Your task to perform on an android device: open app "Yahoo Mail" (install if not already installed) Image 0: 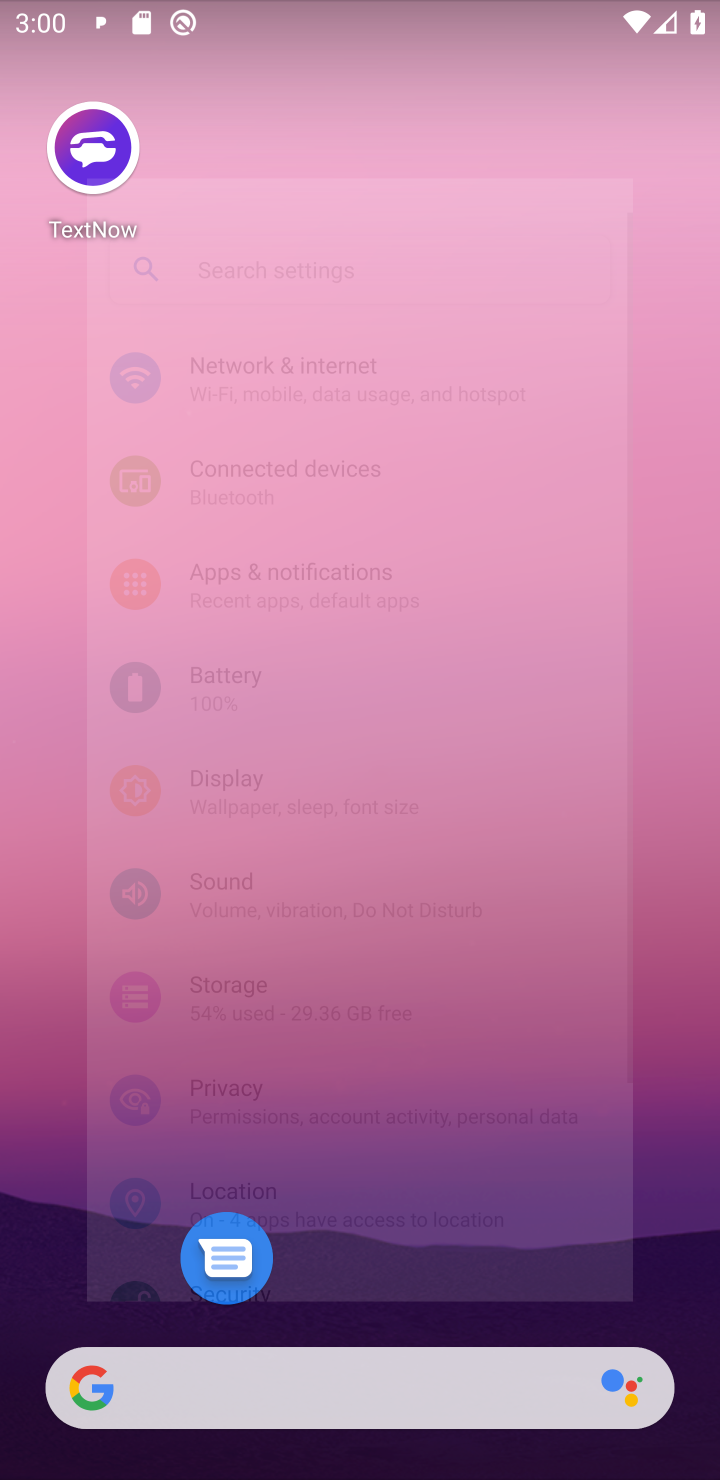
Step 0: press home button
Your task to perform on an android device: open app "Yahoo Mail" (install if not already installed) Image 1: 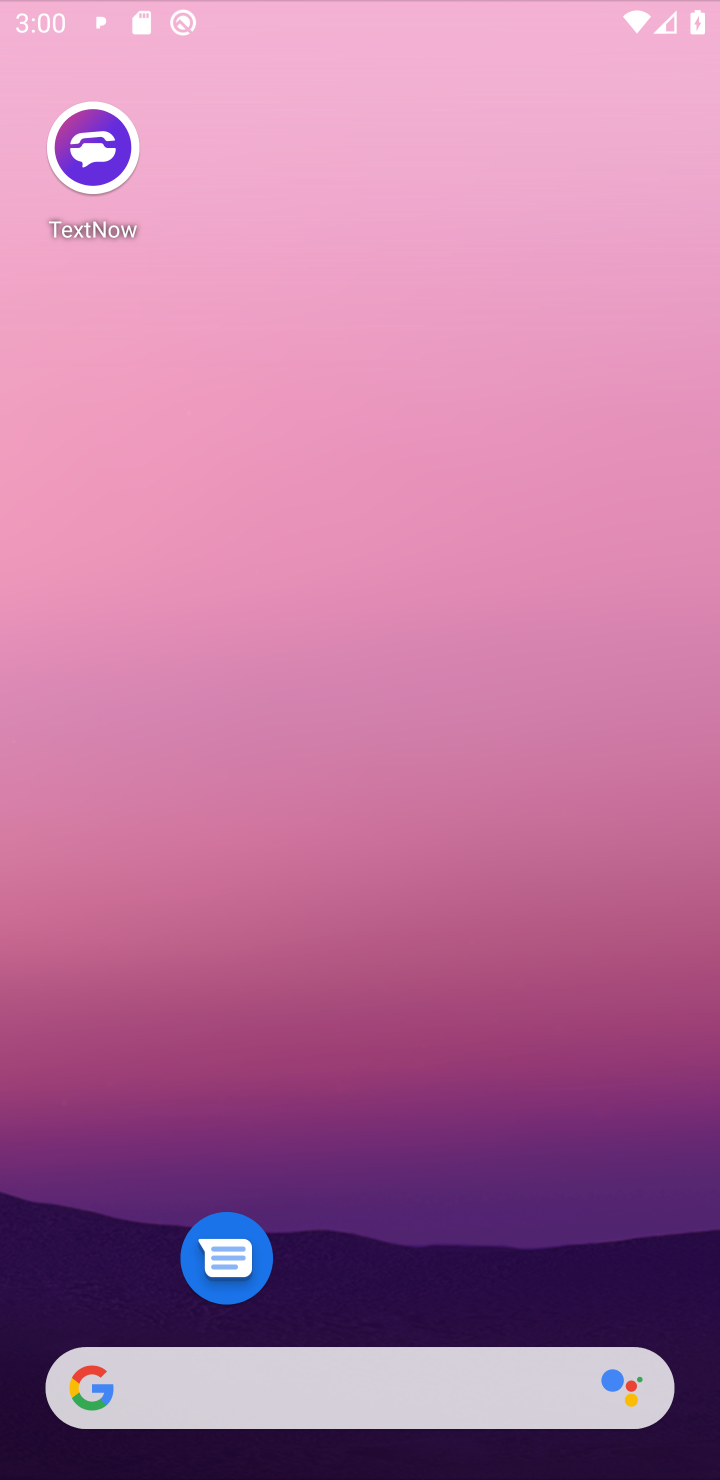
Step 1: press home button
Your task to perform on an android device: open app "Yahoo Mail" (install if not already installed) Image 2: 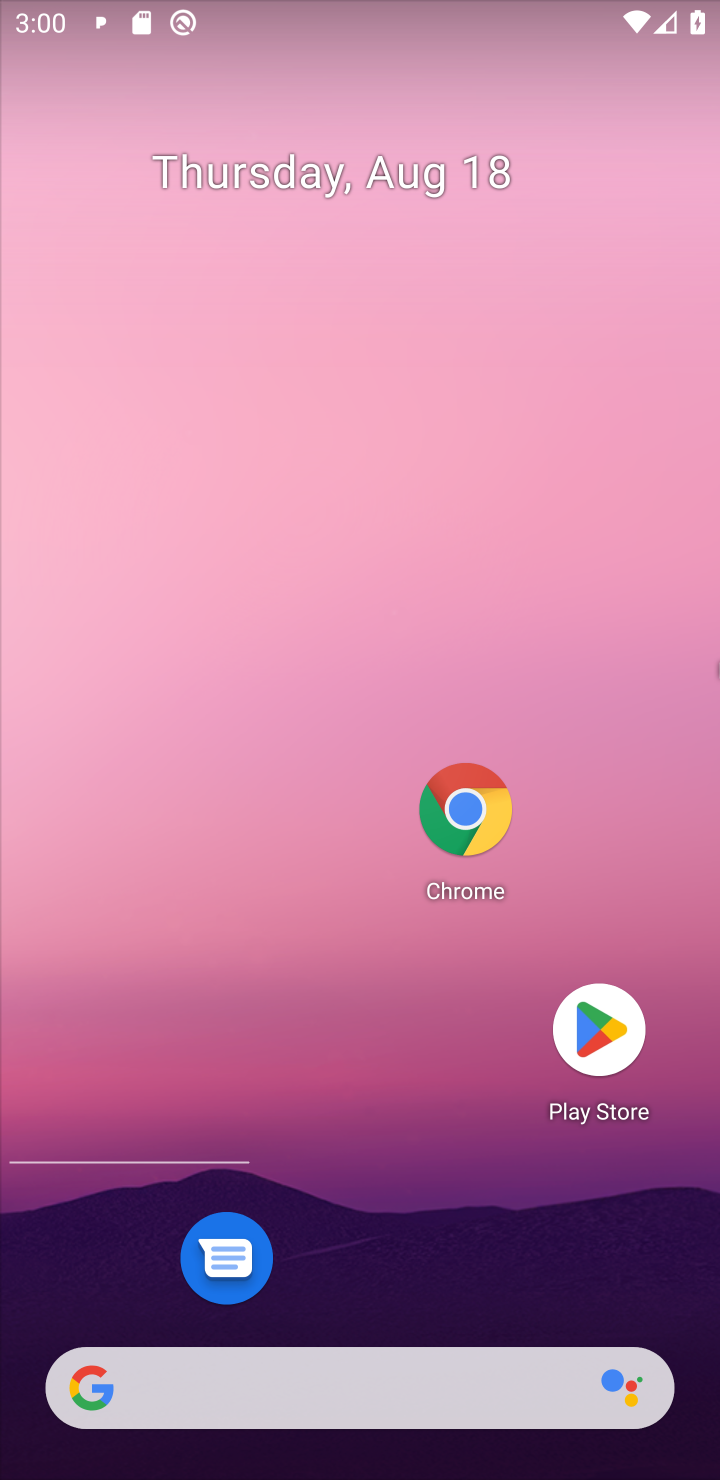
Step 2: click (488, 365)
Your task to perform on an android device: open app "Yahoo Mail" (install if not already installed) Image 3: 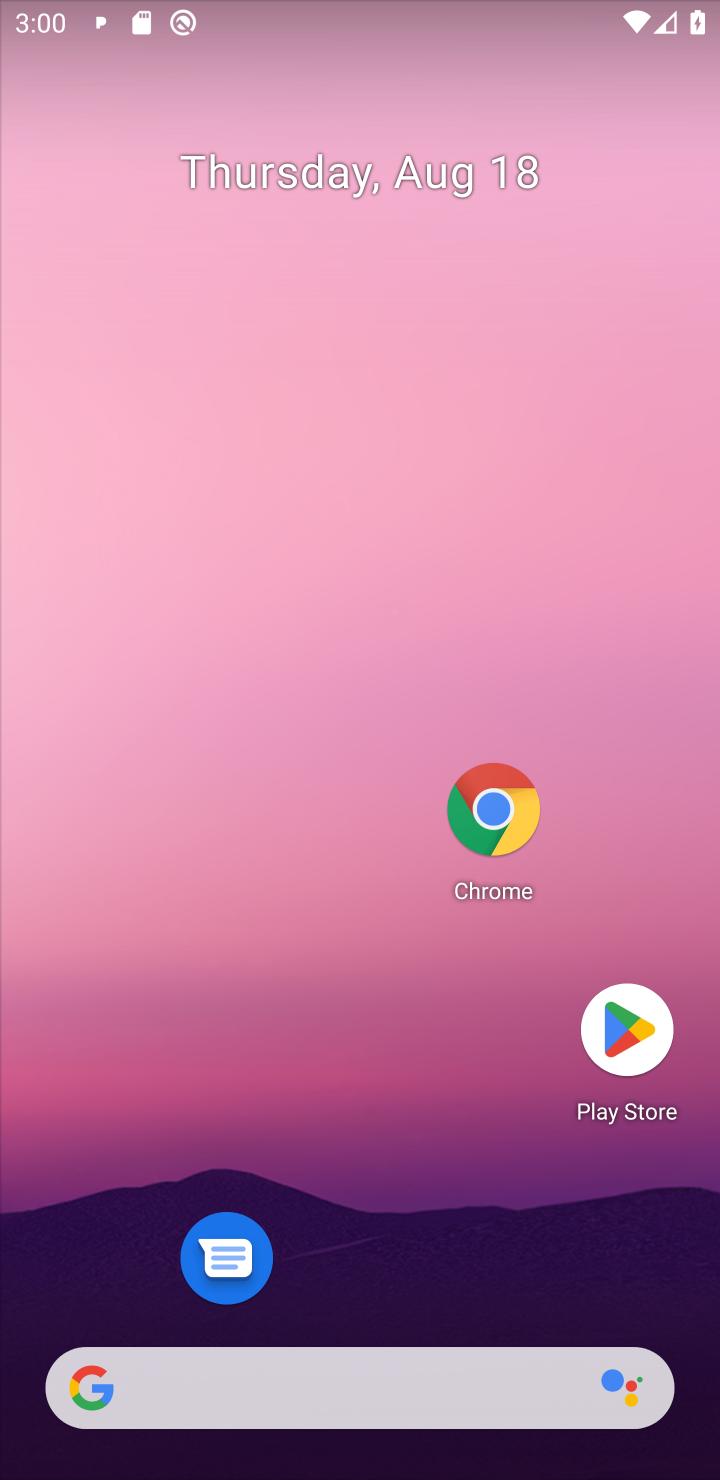
Step 3: click (611, 1013)
Your task to perform on an android device: open app "Yahoo Mail" (install if not already installed) Image 4: 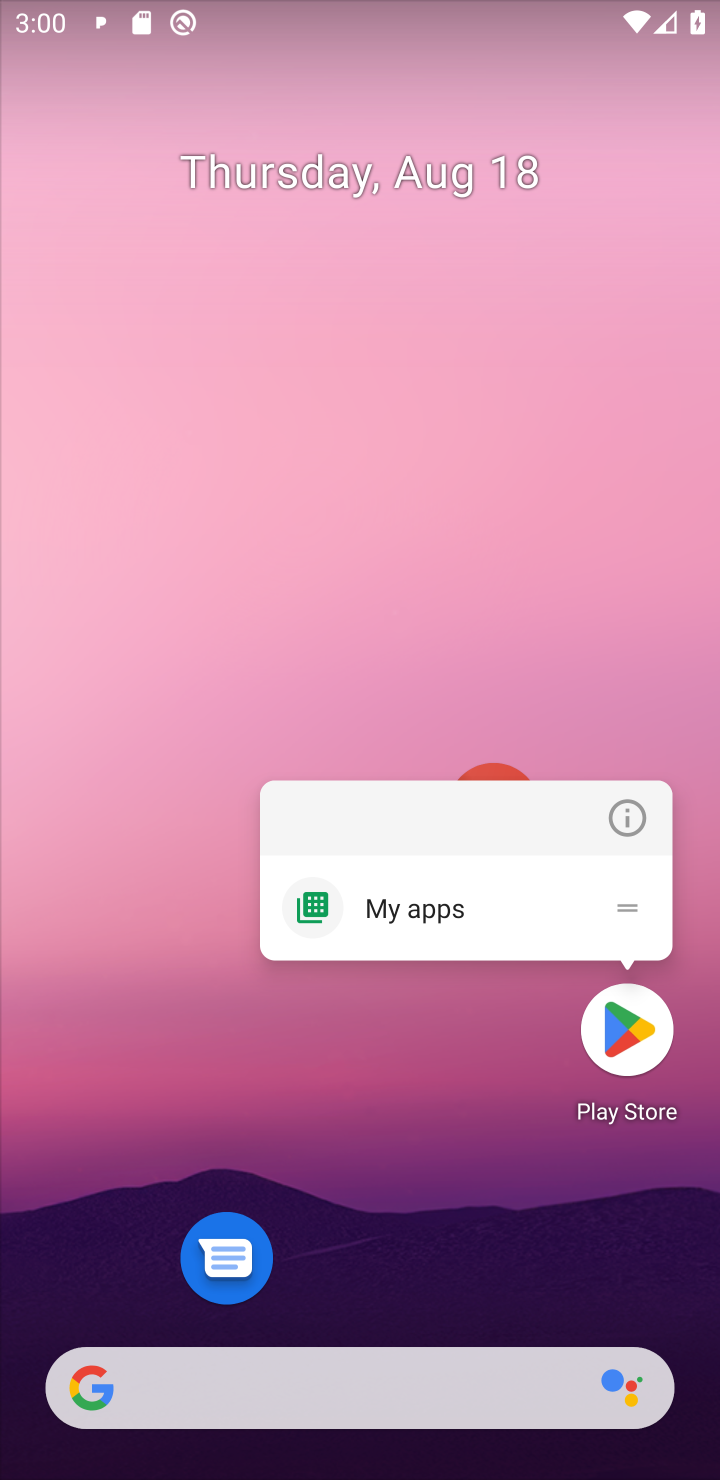
Step 4: click (611, 1013)
Your task to perform on an android device: open app "Yahoo Mail" (install if not already installed) Image 5: 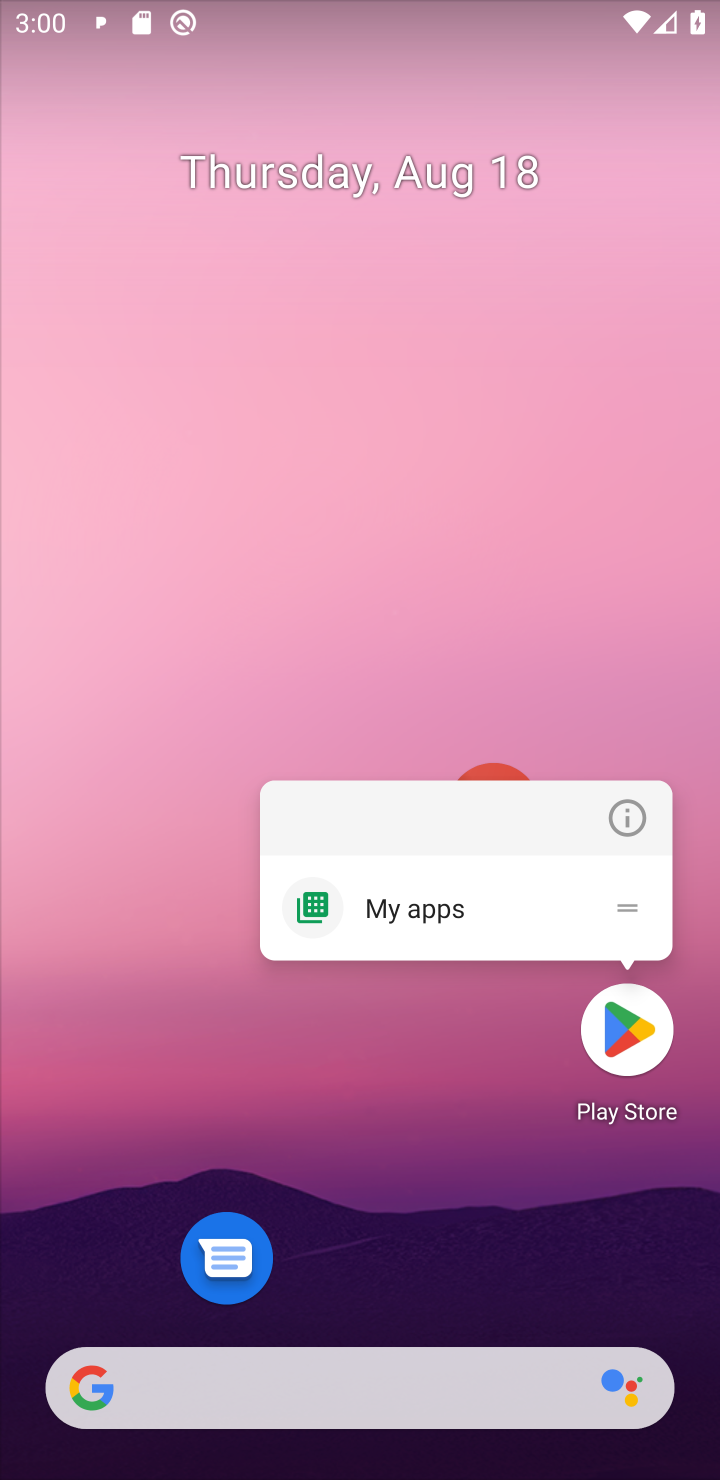
Step 5: click (623, 1030)
Your task to perform on an android device: open app "Yahoo Mail" (install if not already installed) Image 6: 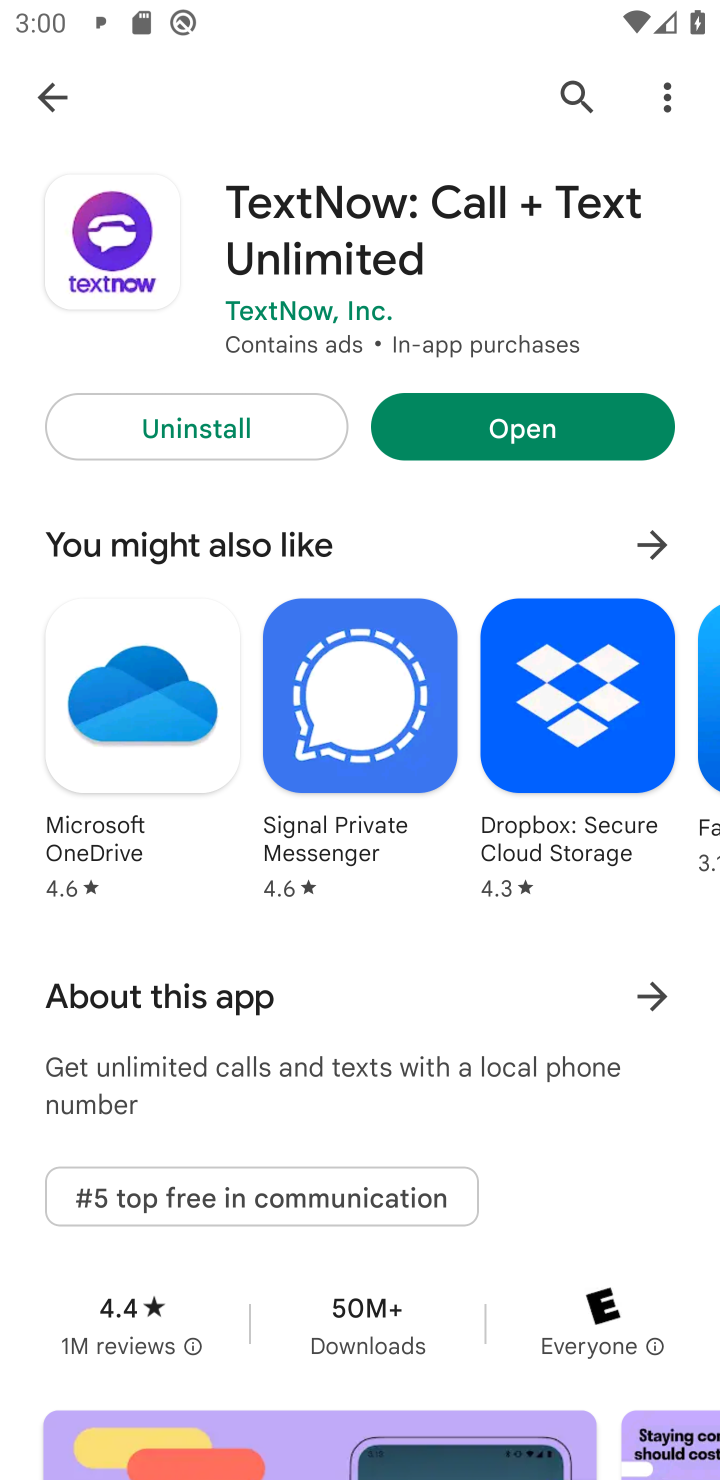
Step 6: click (57, 81)
Your task to perform on an android device: open app "Yahoo Mail" (install if not already installed) Image 7: 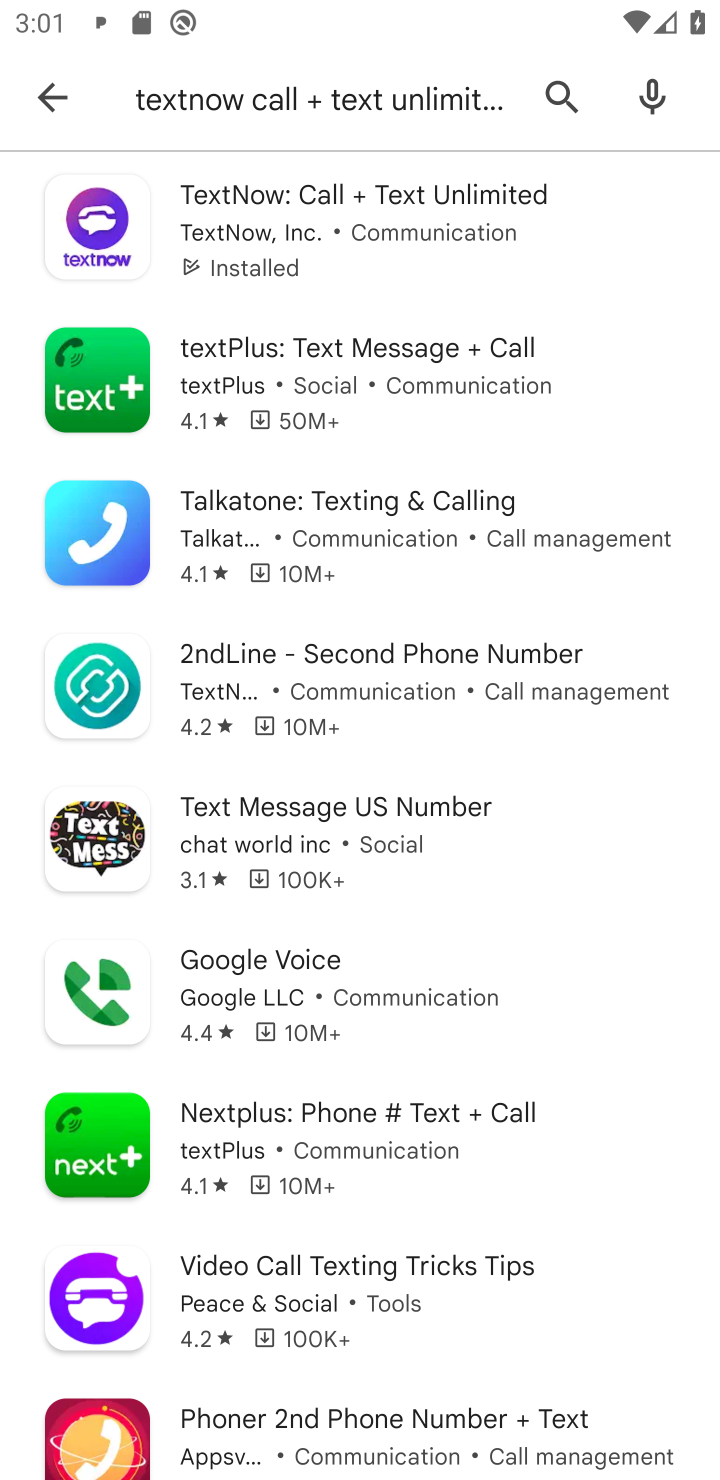
Step 7: click (550, 86)
Your task to perform on an android device: open app "Yahoo Mail" (install if not already installed) Image 8: 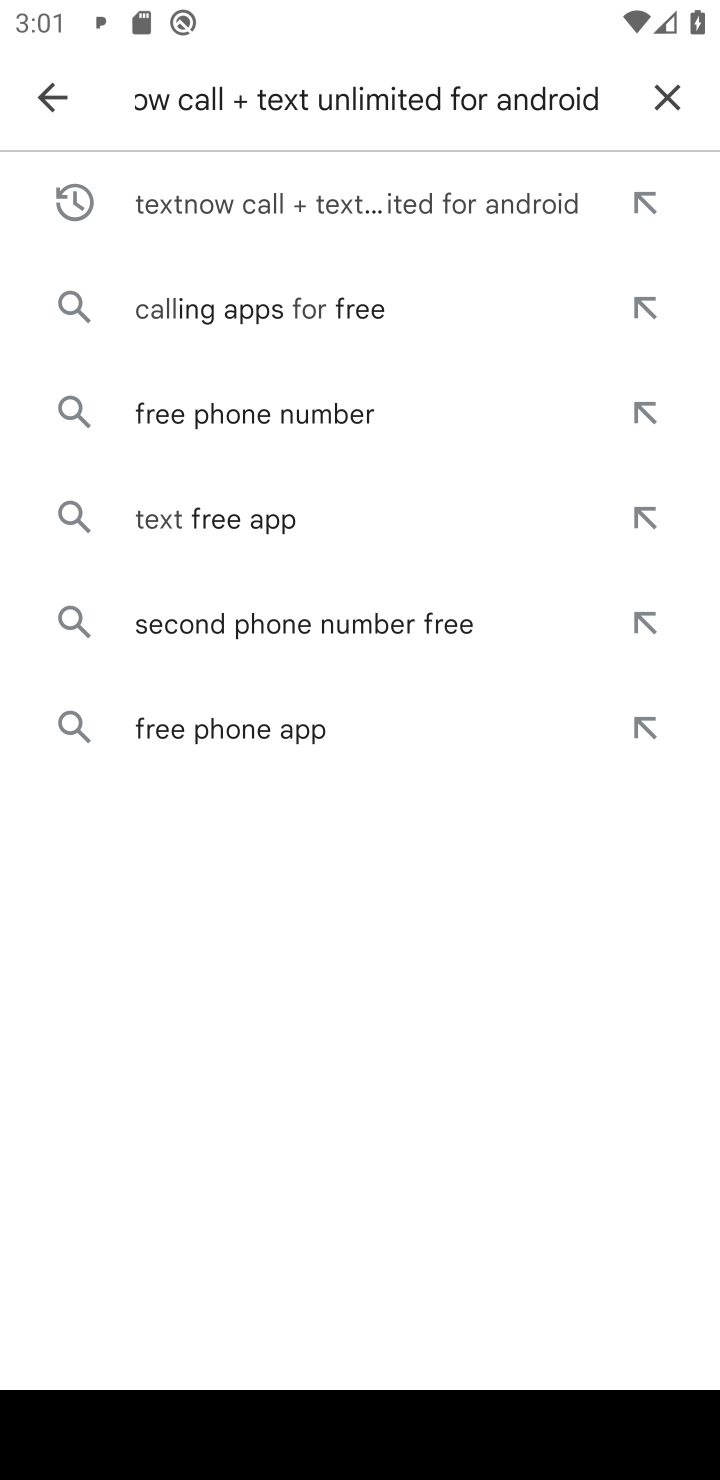
Step 8: click (673, 90)
Your task to perform on an android device: open app "Yahoo Mail" (install if not already installed) Image 9: 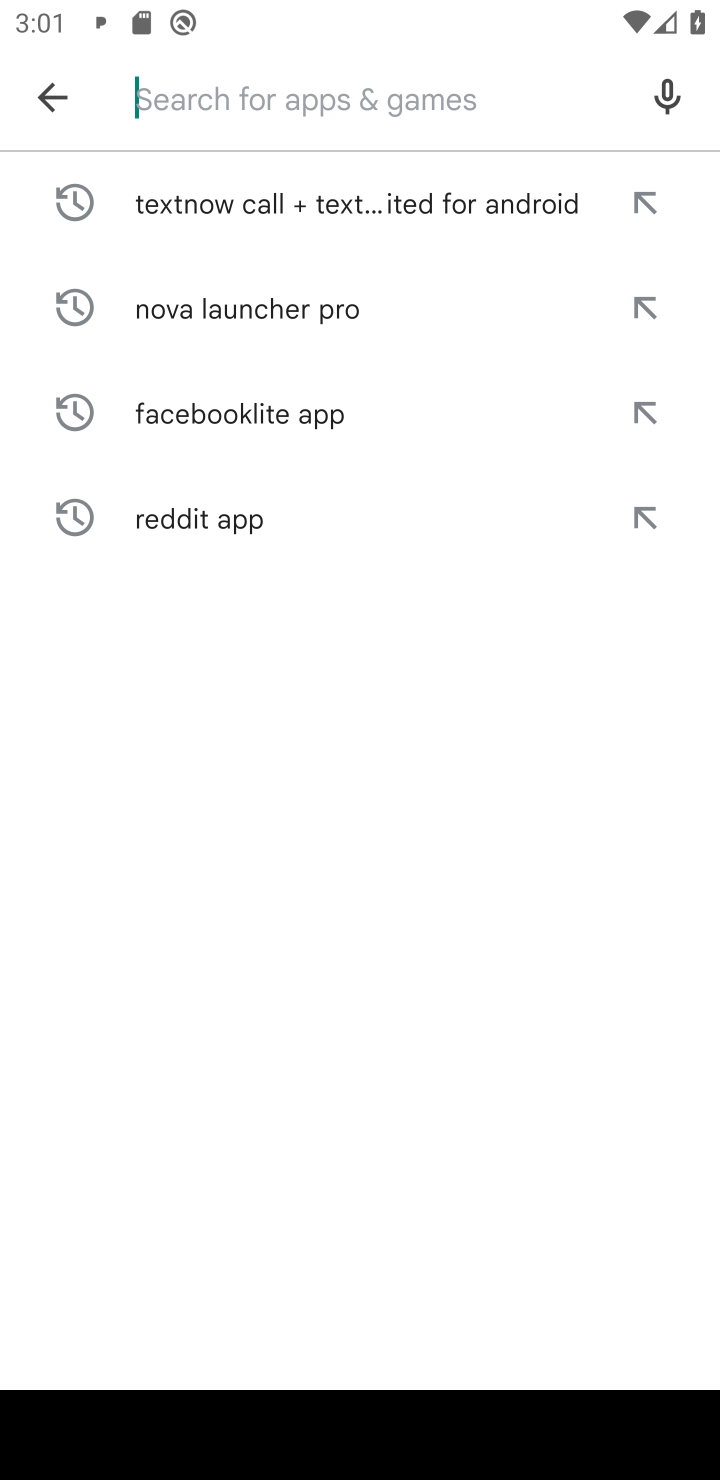
Step 9: click (429, 86)
Your task to perform on an android device: open app "Yahoo Mail" (install if not already installed) Image 10: 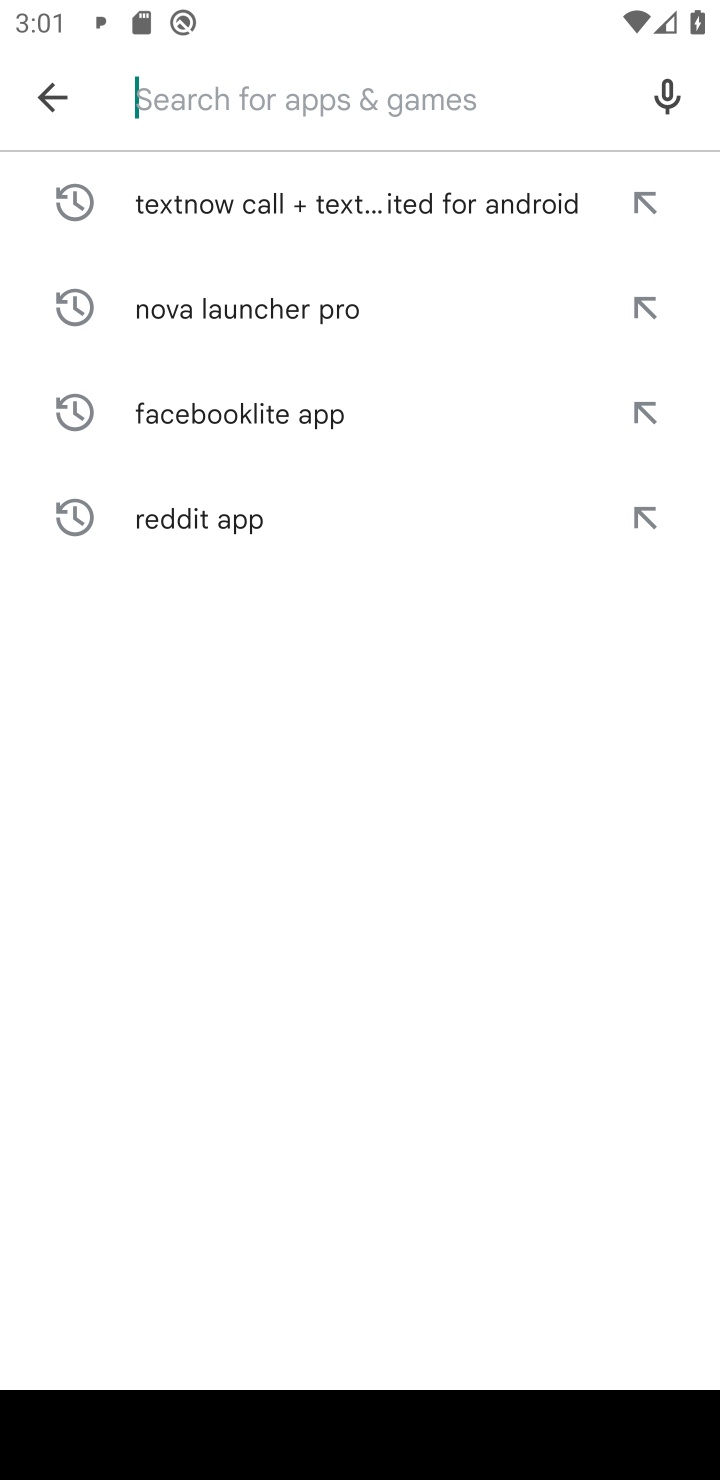
Step 10: type "yahoo mail "
Your task to perform on an android device: open app "Yahoo Mail" (install if not already installed) Image 11: 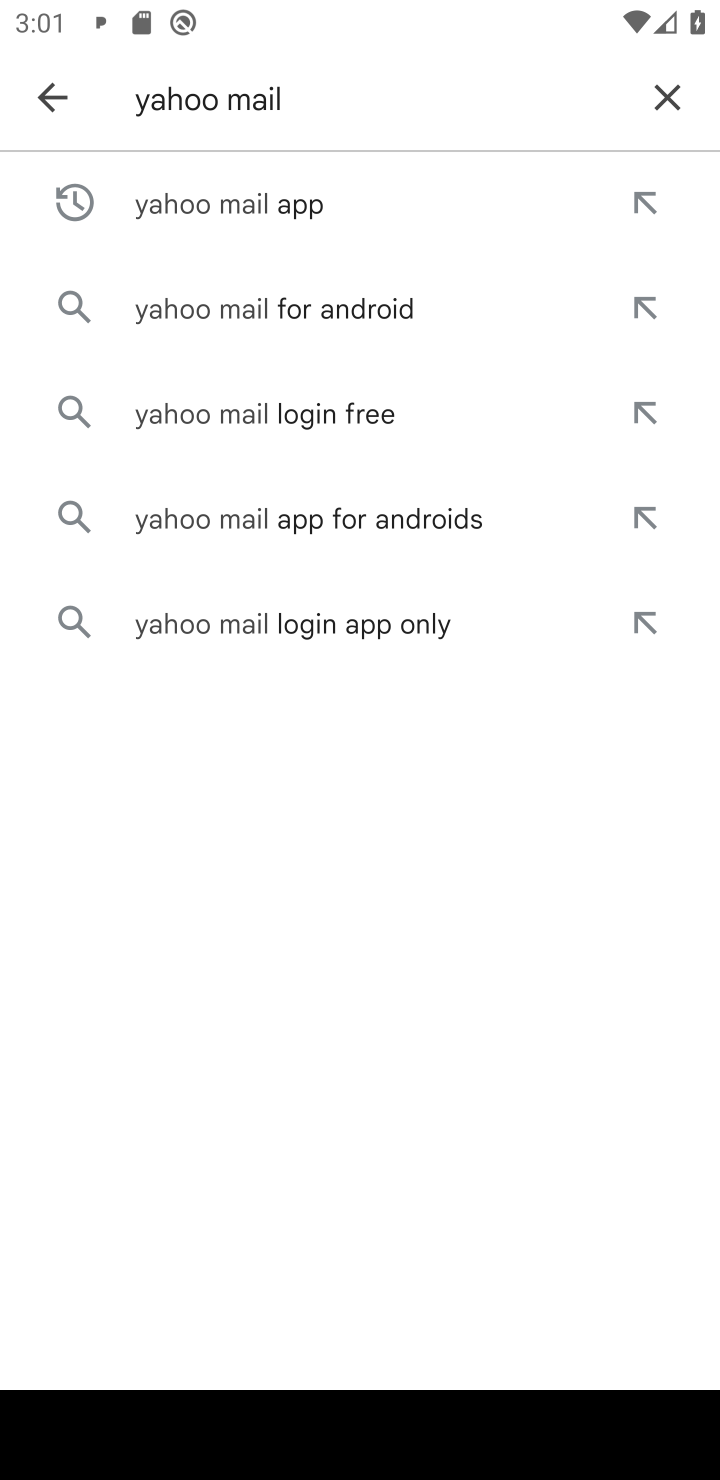
Step 11: click (254, 211)
Your task to perform on an android device: open app "Yahoo Mail" (install if not already installed) Image 12: 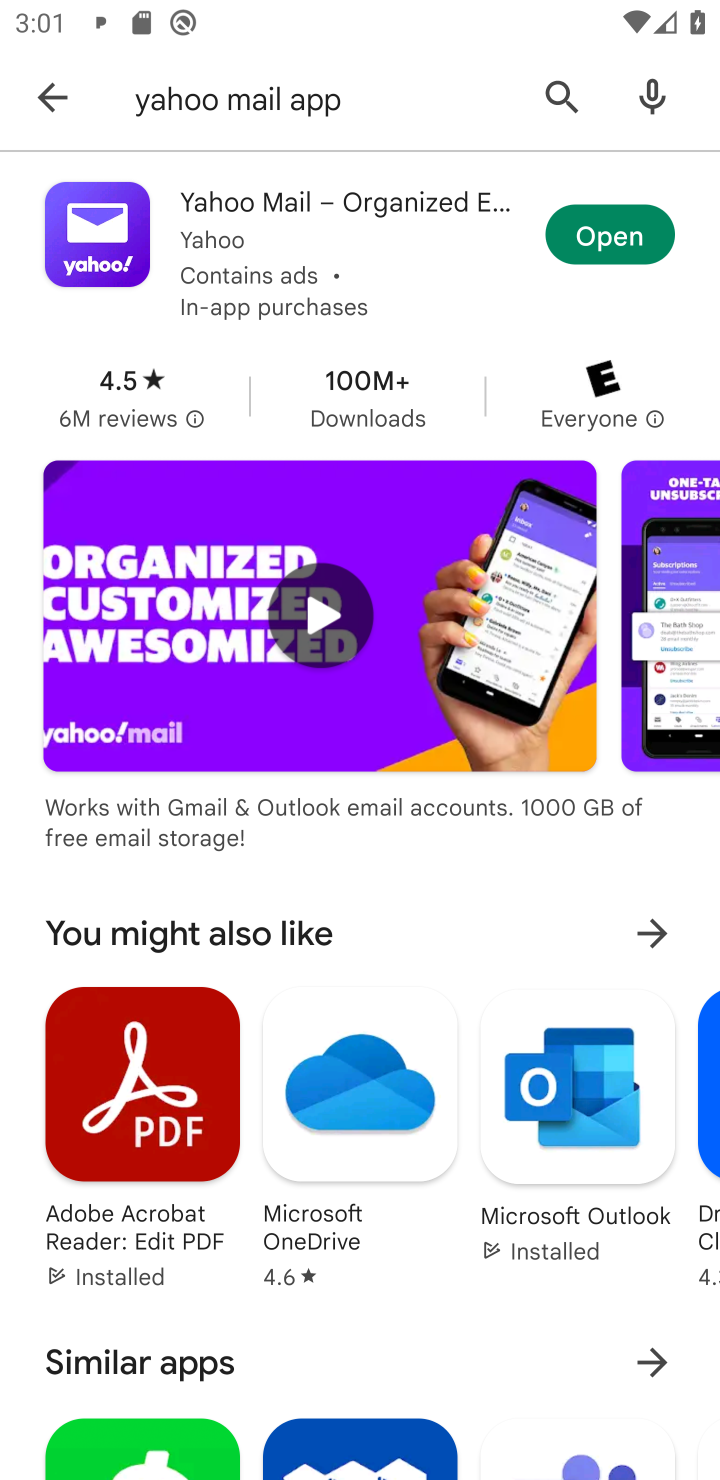
Step 12: click (548, 233)
Your task to perform on an android device: open app "Yahoo Mail" (install if not already installed) Image 13: 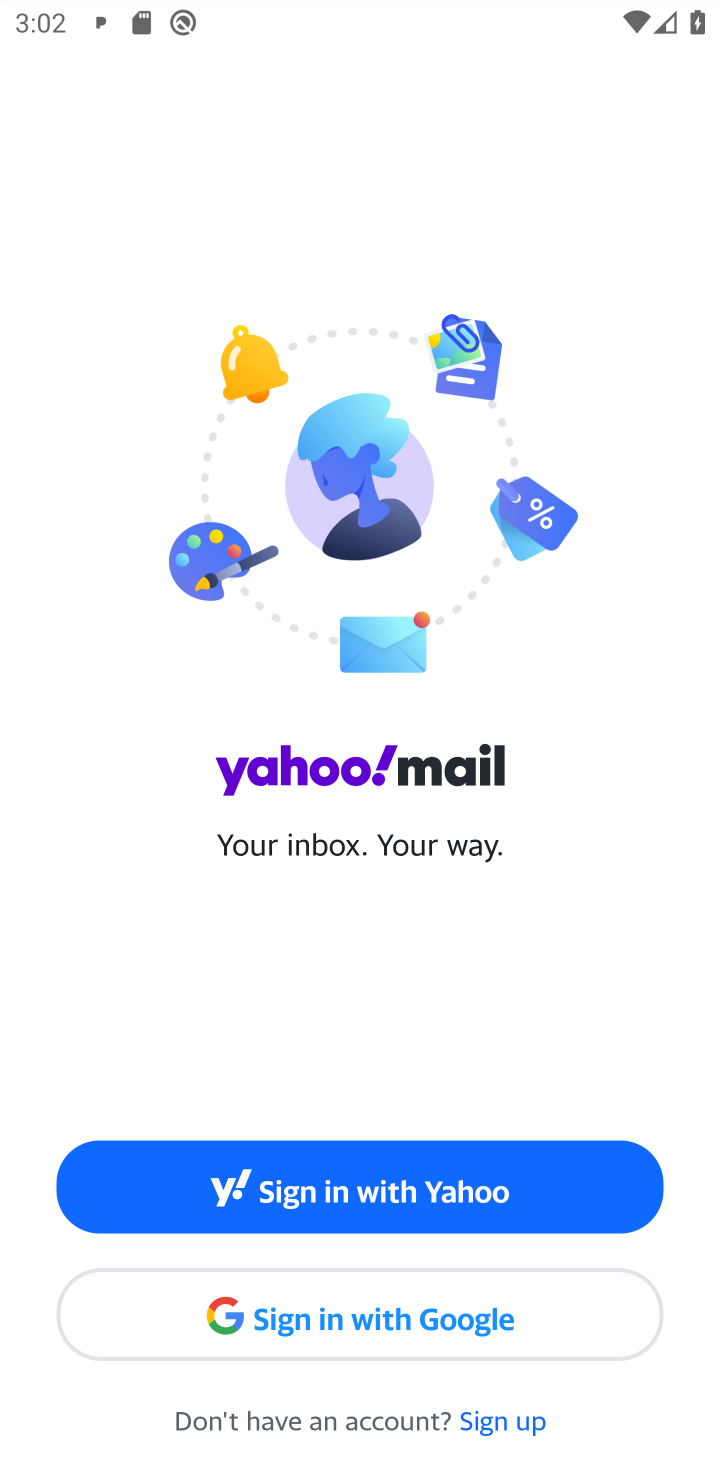
Step 13: task complete